Your task to perform on an android device: Search for seafood restaurants on Google Maps Image 0: 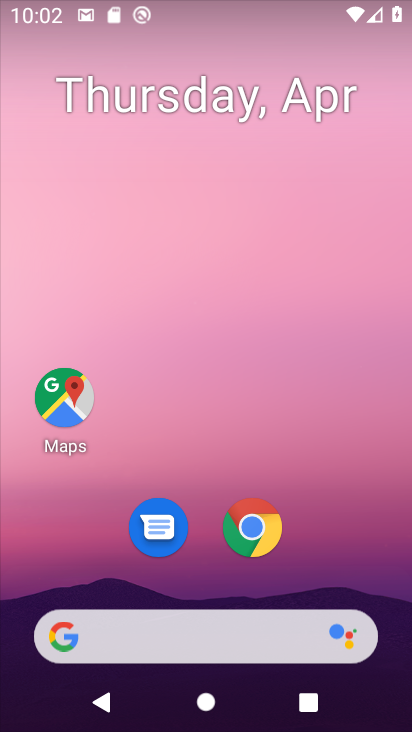
Step 0: click (53, 408)
Your task to perform on an android device: Search for seafood restaurants on Google Maps Image 1: 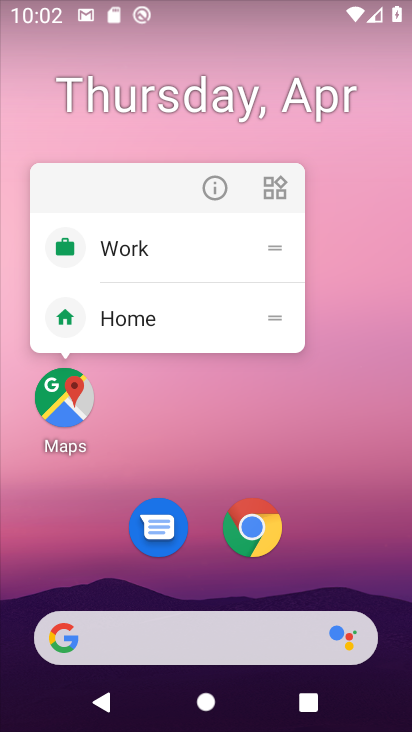
Step 1: click (53, 408)
Your task to perform on an android device: Search for seafood restaurants on Google Maps Image 2: 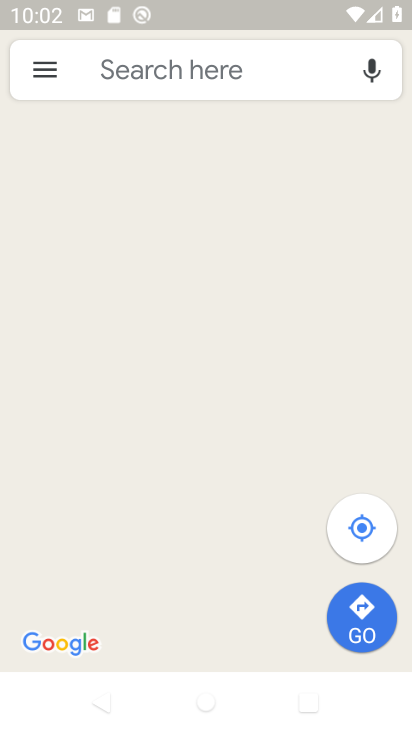
Step 2: click (213, 77)
Your task to perform on an android device: Search for seafood restaurants on Google Maps Image 3: 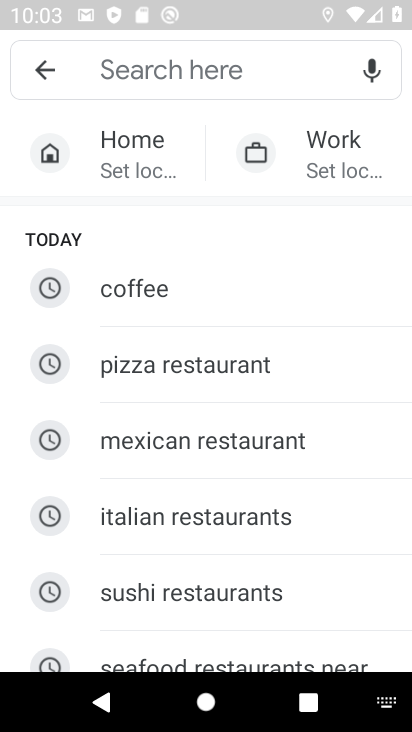
Step 3: type "seafood restu"
Your task to perform on an android device: Search for seafood restaurants on Google Maps Image 4: 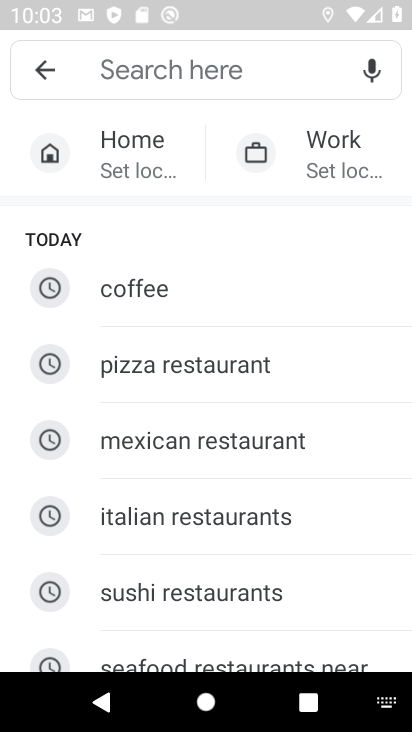
Step 4: click (264, 178)
Your task to perform on an android device: Search for seafood restaurants on Google Maps Image 5: 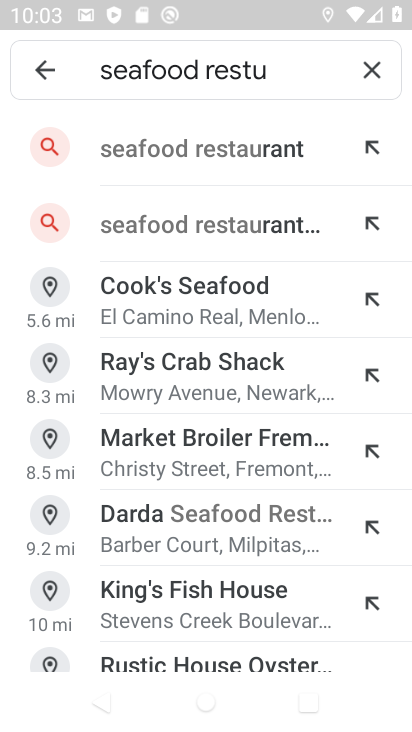
Step 5: click (209, 146)
Your task to perform on an android device: Search for seafood restaurants on Google Maps Image 6: 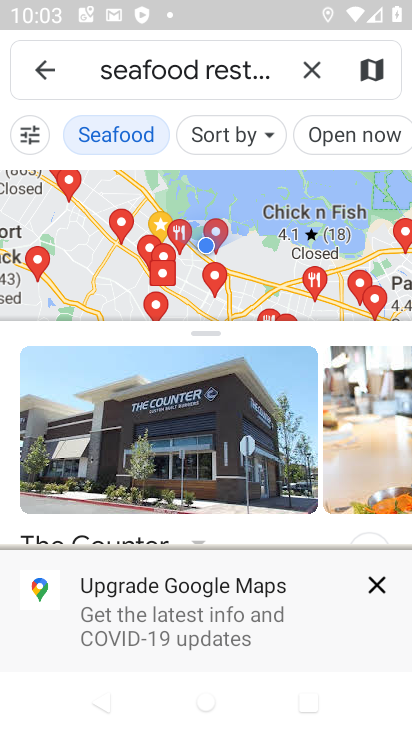
Step 6: task complete